Your task to perform on an android device: Go to privacy settings Image 0: 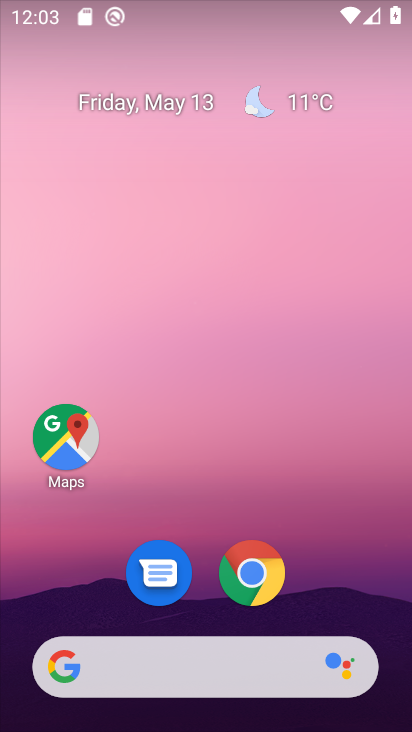
Step 0: drag from (335, 572) to (326, 102)
Your task to perform on an android device: Go to privacy settings Image 1: 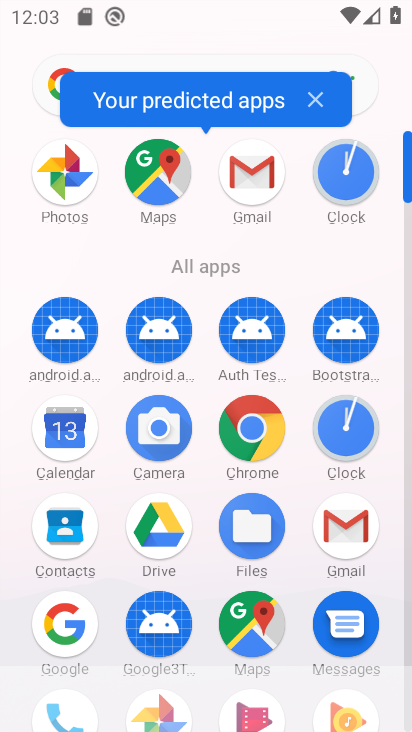
Step 1: drag from (379, 620) to (378, 143)
Your task to perform on an android device: Go to privacy settings Image 2: 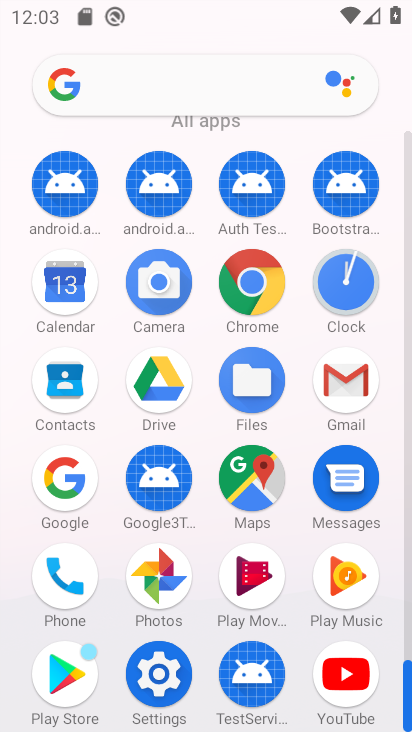
Step 2: click (166, 692)
Your task to perform on an android device: Go to privacy settings Image 3: 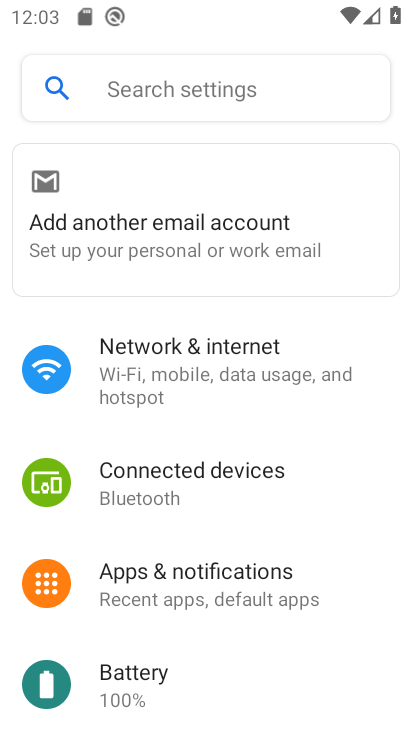
Step 3: drag from (193, 523) to (174, 253)
Your task to perform on an android device: Go to privacy settings Image 4: 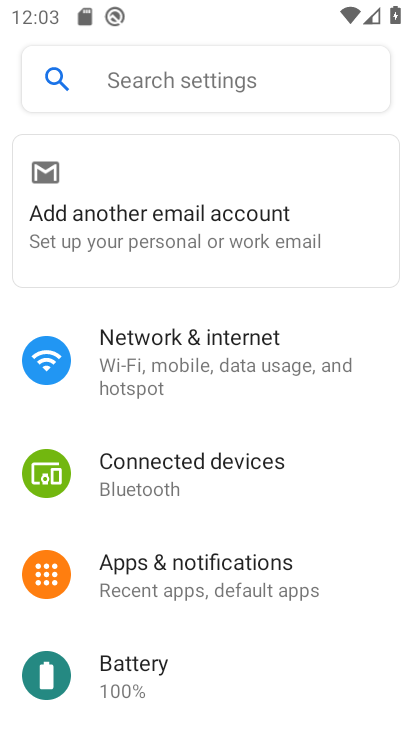
Step 4: drag from (198, 626) to (217, 228)
Your task to perform on an android device: Go to privacy settings Image 5: 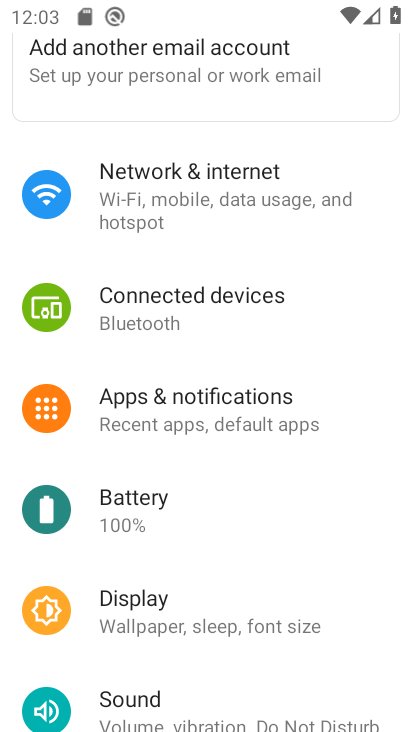
Step 5: drag from (191, 720) to (217, 267)
Your task to perform on an android device: Go to privacy settings Image 6: 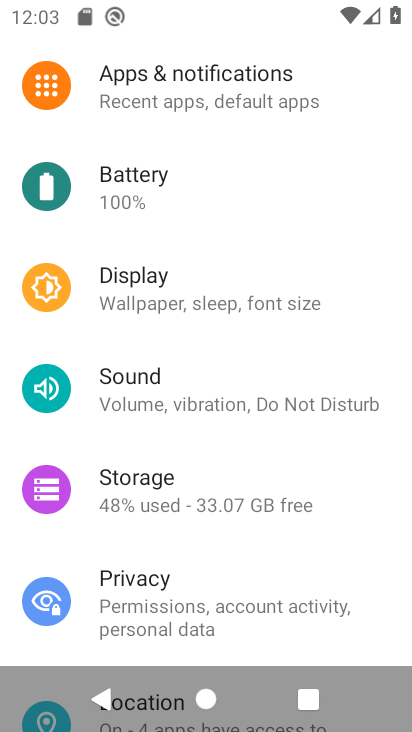
Step 6: click (200, 588)
Your task to perform on an android device: Go to privacy settings Image 7: 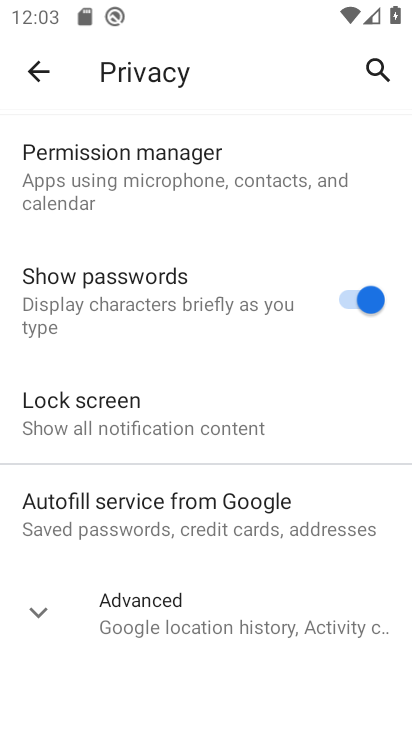
Step 7: task complete